Your task to perform on an android device: Go to location settings Image 0: 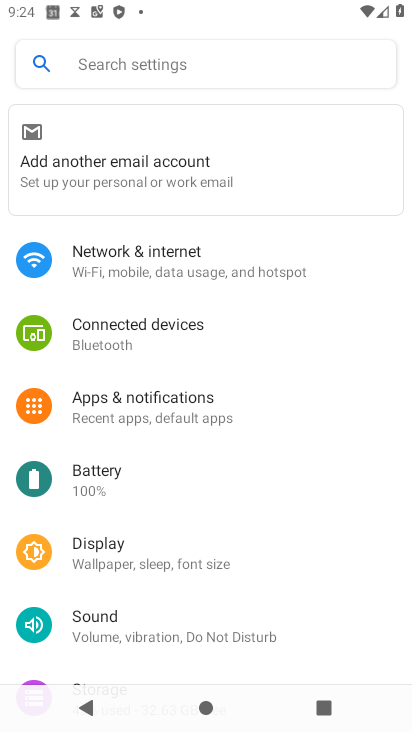
Step 0: press home button
Your task to perform on an android device: Go to location settings Image 1: 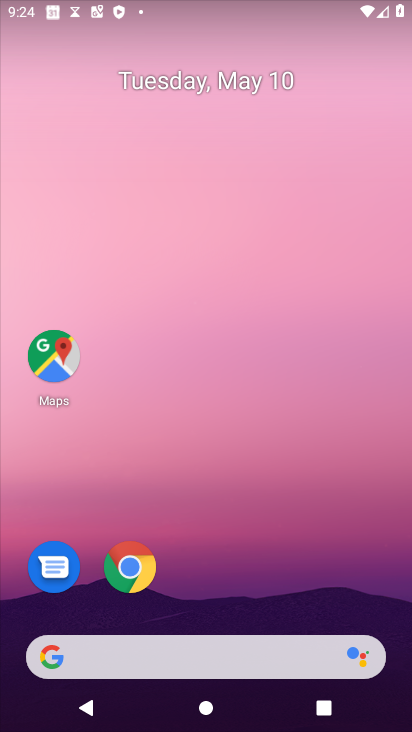
Step 1: drag from (52, 615) to (257, 111)
Your task to perform on an android device: Go to location settings Image 2: 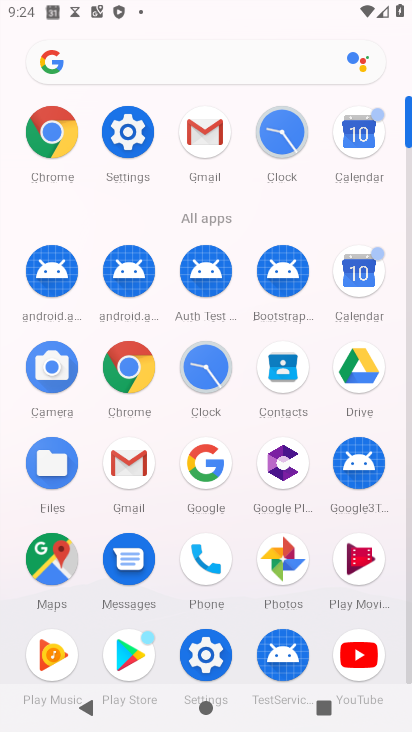
Step 2: click (117, 132)
Your task to perform on an android device: Go to location settings Image 3: 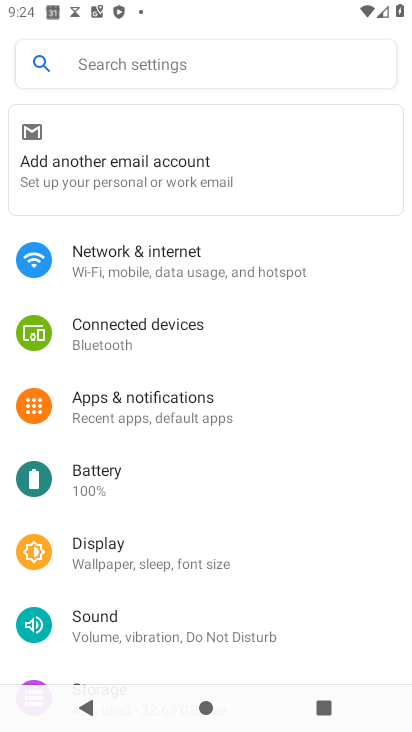
Step 3: drag from (15, 651) to (274, 150)
Your task to perform on an android device: Go to location settings Image 4: 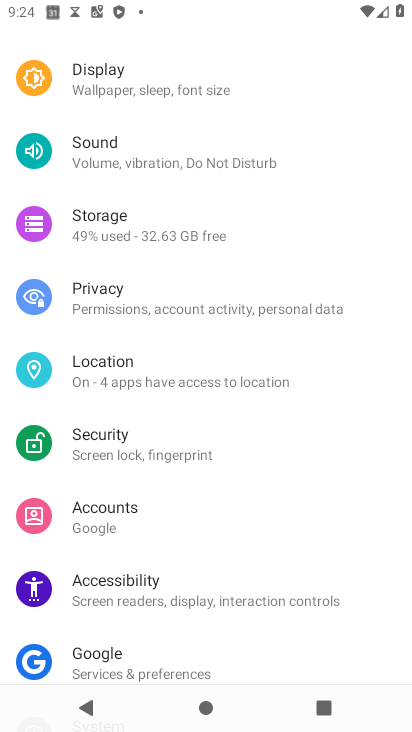
Step 4: click (159, 389)
Your task to perform on an android device: Go to location settings Image 5: 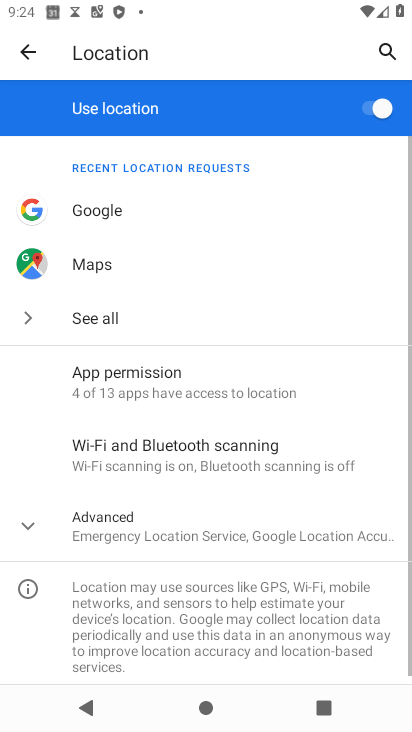
Step 5: drag from (50, 631) to (219, 232)
Your task to perform on an android device: Go to location settings Image 6: 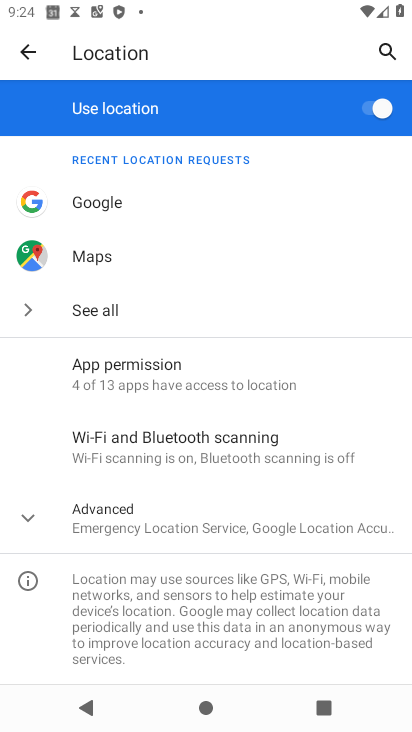
Step 6: click (144, 511)
Your task to perform on an android device: Go to location settings Image 7: 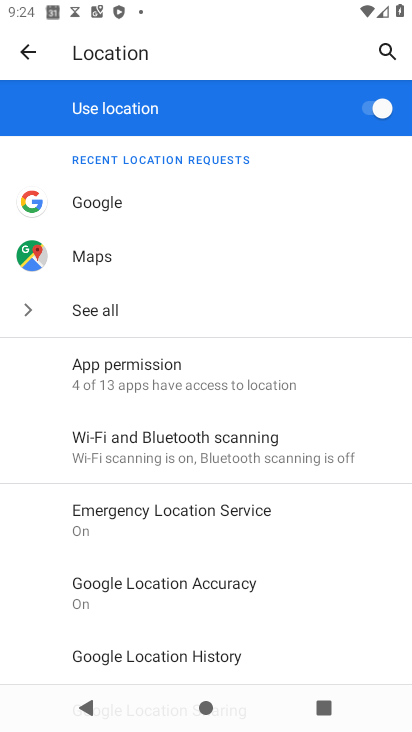
Step 7: task complete